Your task to perform on an android device: open a bookmark in the chrome app Image 0: 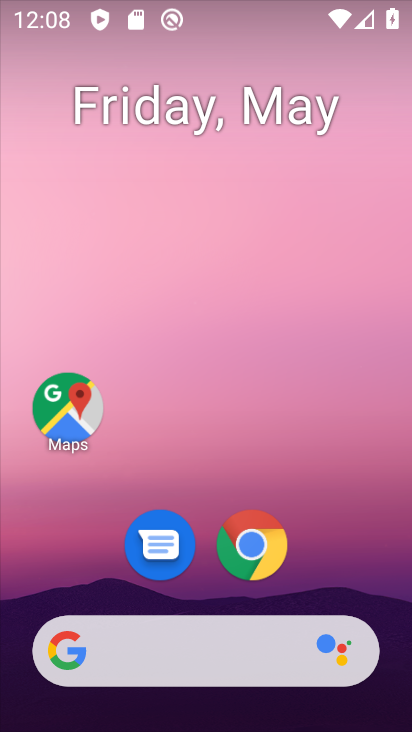
Step 0: click (255, 548)
Your task to perform on an android device: open a bookmark in the chrome app Image 1: 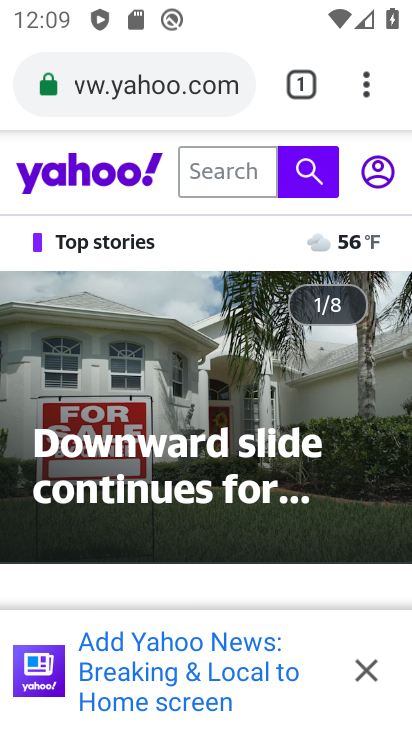
Step 1: click (371, 87)
Your task to perform on an android device: open a bookmark in the chrome app Image 2: 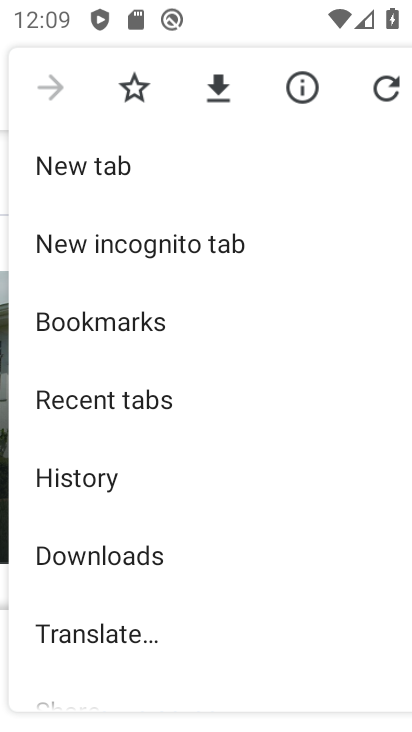
Step 2: click (144, 324)
Your task to perform on an android device: open a bookmark in the chrome app Image 3: 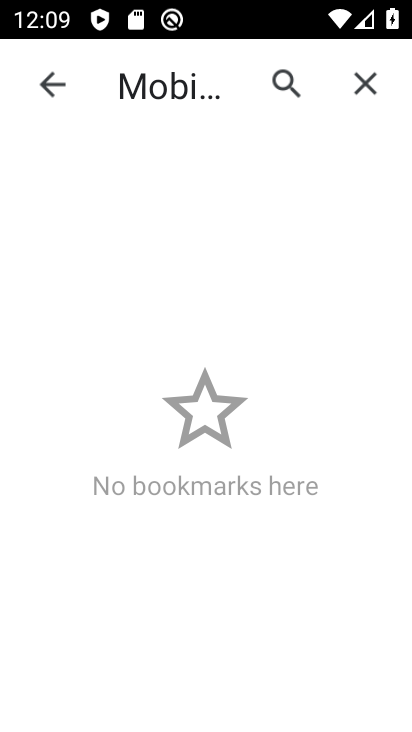
Step 3: task complete